Your task to perform on an android device: Open location settings Image 0: 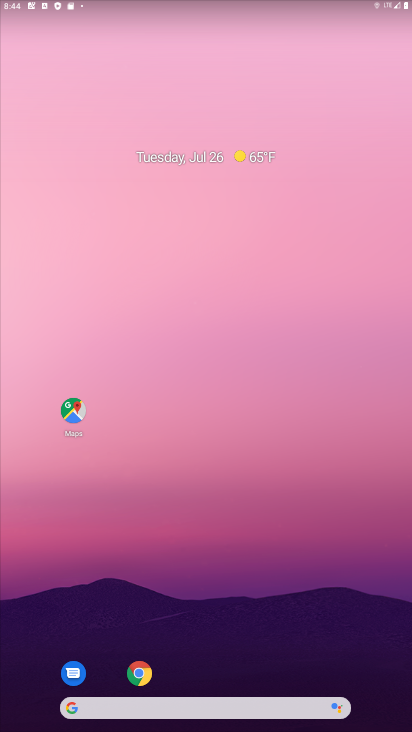
Step 0: drag from (204, 658) to (204, 184)
Your task to perform on an android device: Open location settings Image 1: 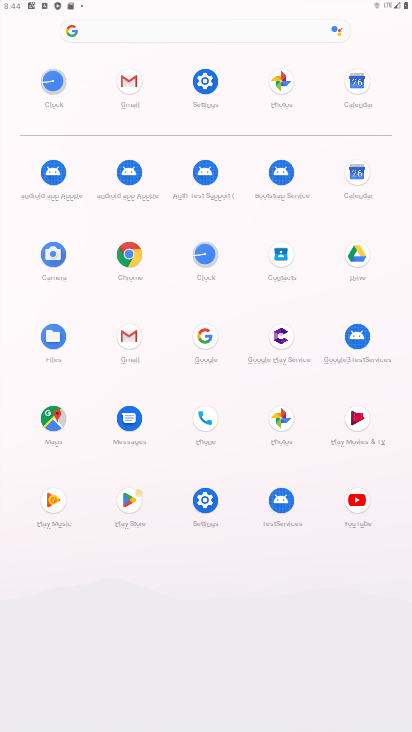
Step 1: click (198, 97)
Your task to perform on an android device: Open location settings Image 2: 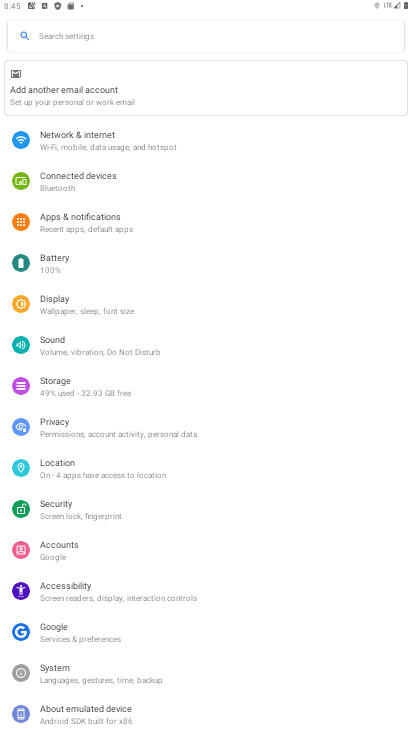
Step 2: click (54, 473)
Your task to perform on an android device: Open location settings Image 3: 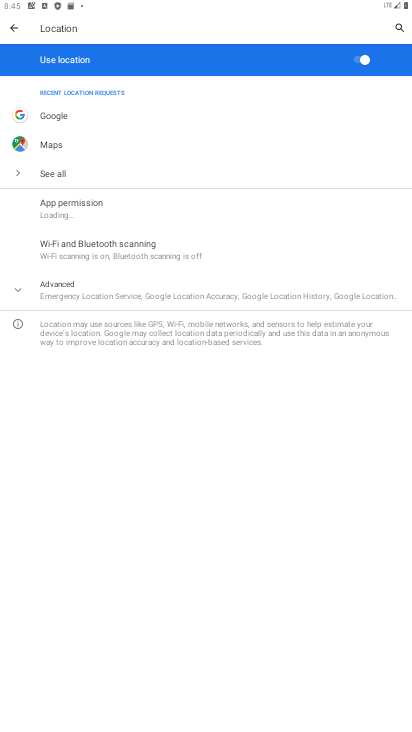
Step 3: task complete